Your task to perform on an android device: View the shopping cart on costco. Image 0: 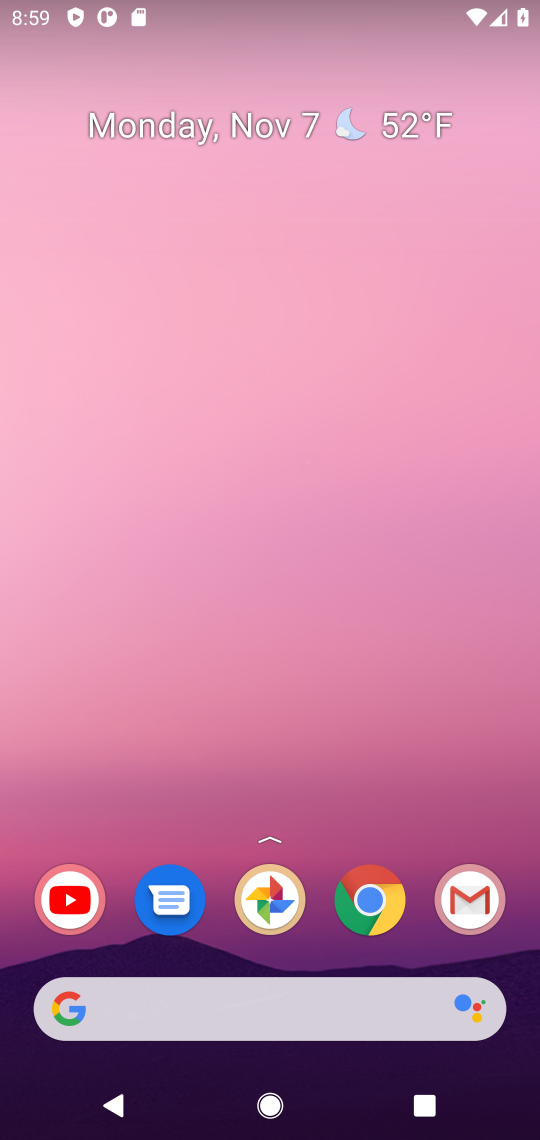
Step 0: click (322, 1008)
Your task to perform on an android device: View the shopping cart on costco. Image 1: 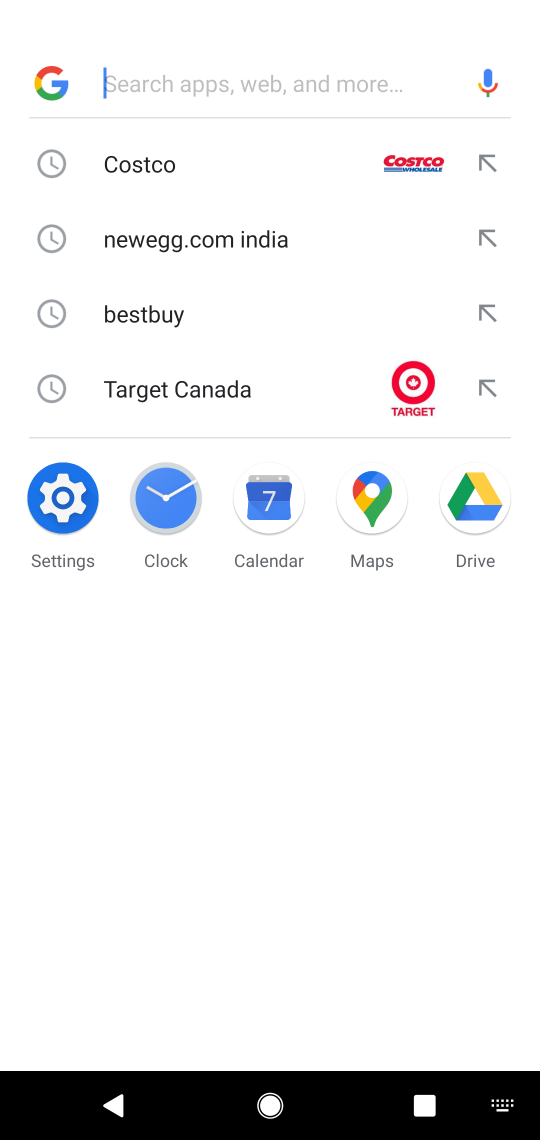
Step 1: click (176, 175)
Your task to perform on an android device: View the shopping cart on costco. Image 2: 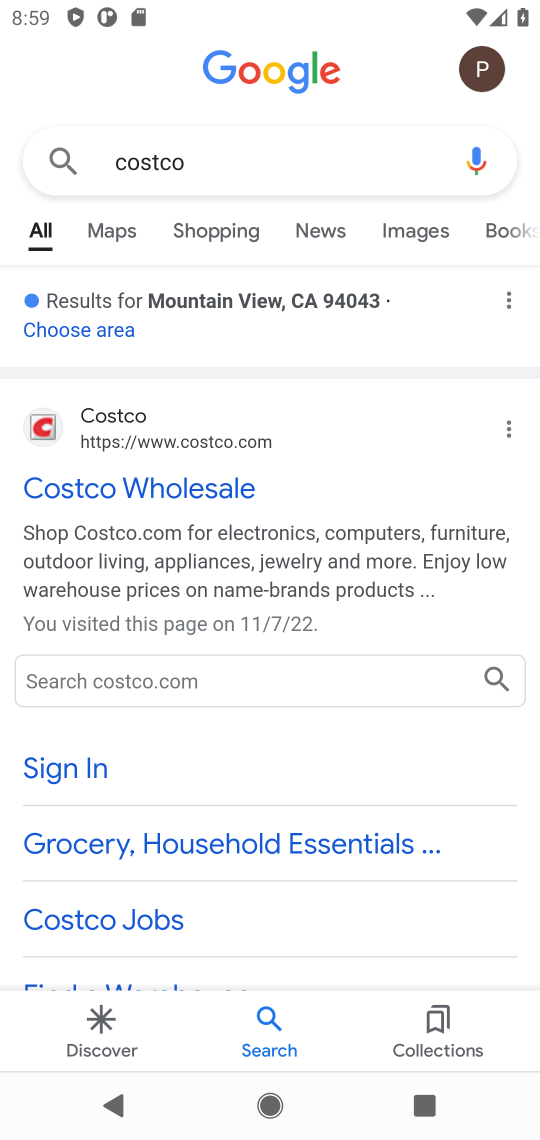
Step 2: click (197, 488)
Your task to perform on an android device: View the shopping cart on costco. Image 3: 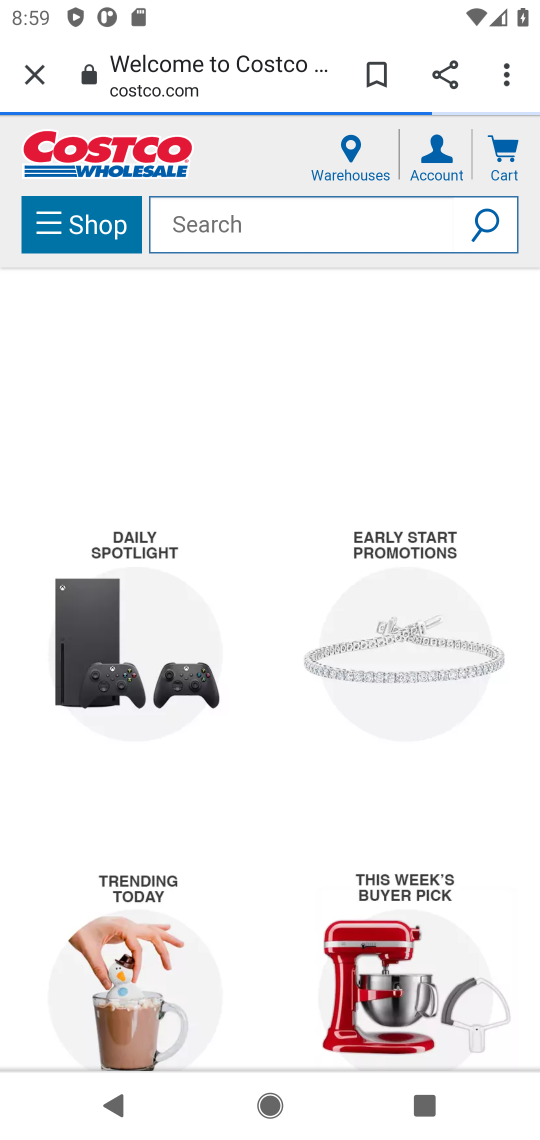
Step 3: click (324, 236)
Your task to perform on an android device: View the shopping cart on costco. Image 4: 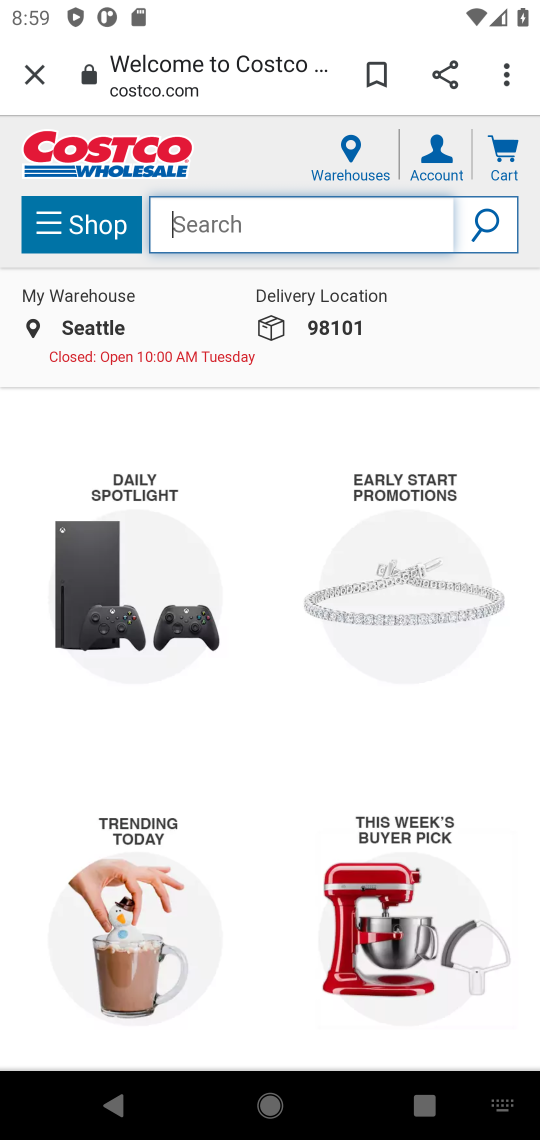
Step 4: click (467, 162)
Your task to perform on an android device: View the shopping cart on costco. Image 5: 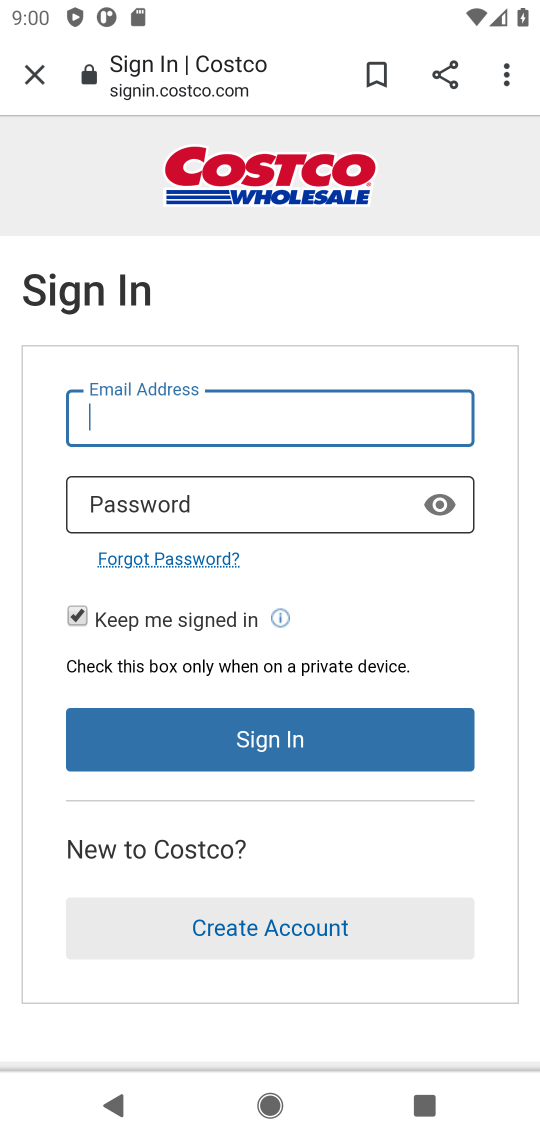
Step 5: task complete